Your task to perform on an android device: Go to calendar. Show me events next week Image 0: 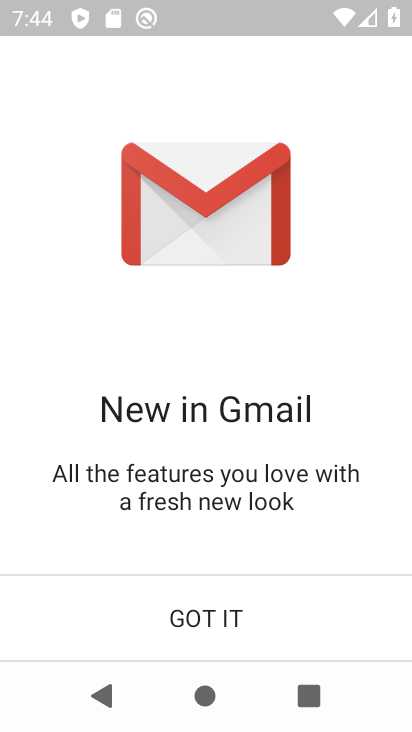
Step 0: drag from (227, 553) to (227, 123)
Your task to perform on an android device: Go to calendar. Show me events next week Image 1: 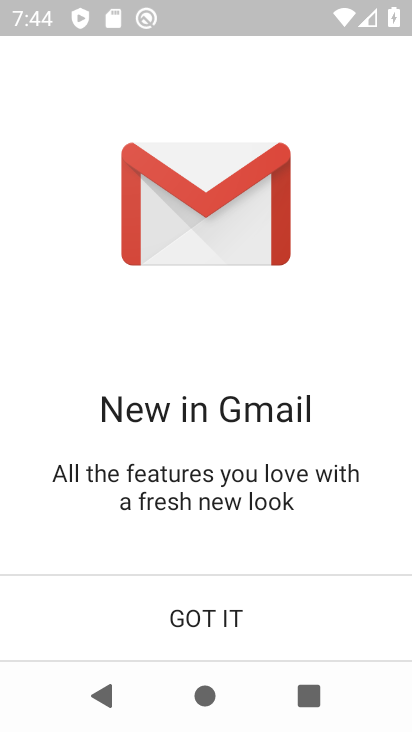
Step 1: press home button
Your task to perform on an android device: Go to calendar. Show me events next week Image 2: 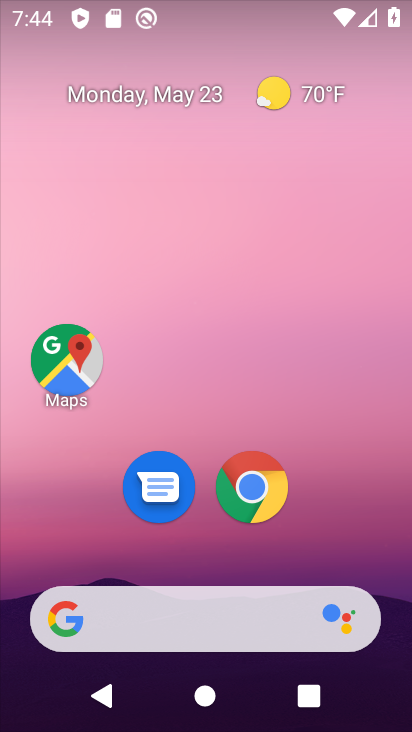
Step 2: drag from (249, 595) to (247, 193)
Your task to perform on an android device: Go to calendar. Show me events next week Image 3: 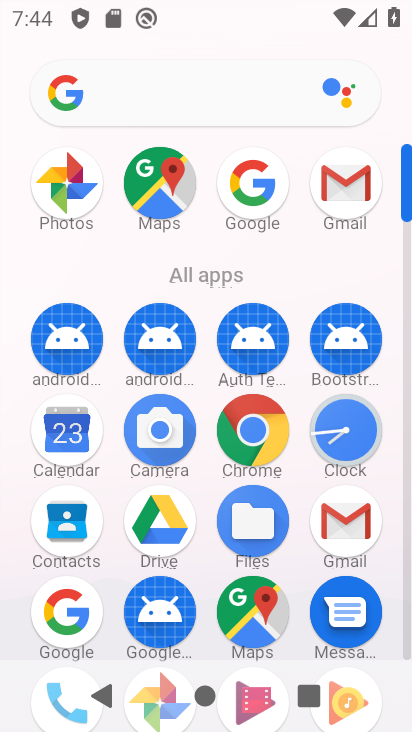
Step 3: click (56, 429)
Your task to perform on an android device: Go to calendar. Show me events next week Image 4: 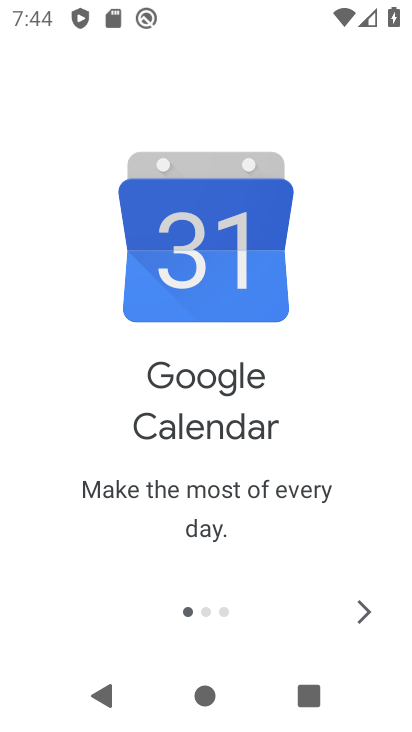
Step 4: click (366, 609)
Your task to perform on an android device: Go to calendar. Show me events next week Image 5: 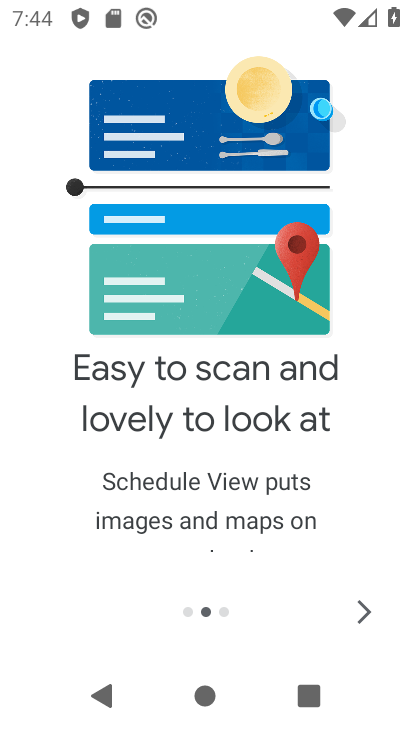
Step 5: click (366, 609)
Your task to perform on an android device: Go to calendar. Show me events next week Image 6: 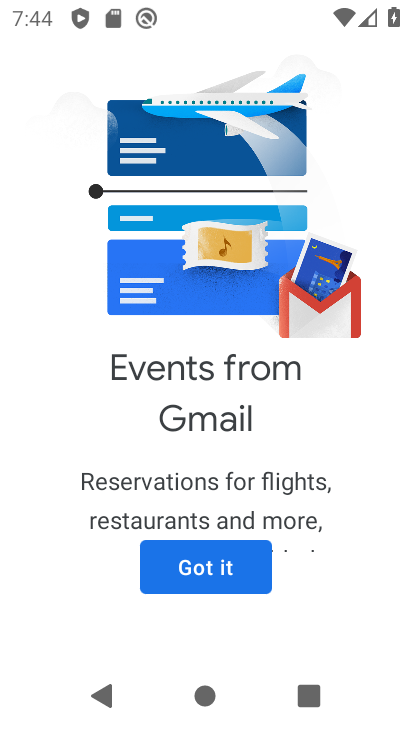
Step 6: click (235, 579)
Your task to perform on an android device: Go to calendar. Show me events next week Image 7: 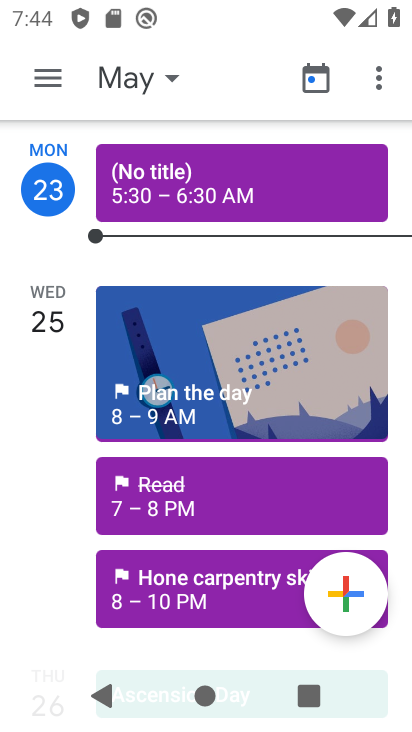
Step 7: click (126, 85)
Your task to perform on an android device: Go to calendar. Show me events next week Image 8: 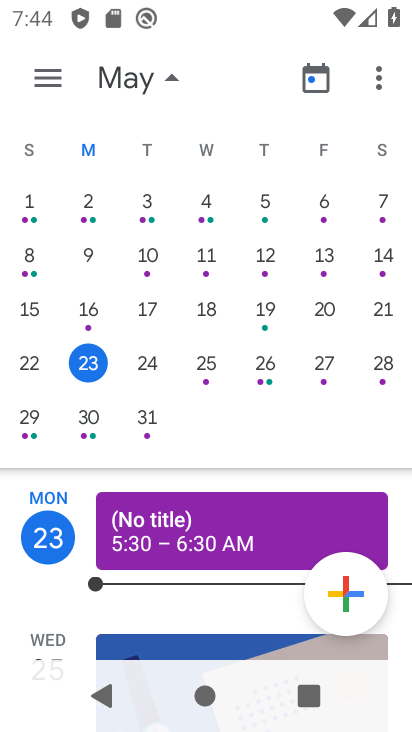
Step 8: click (0, 405)
Your task to perform on an android device: Go to calendar. Show me events next week Image 9: 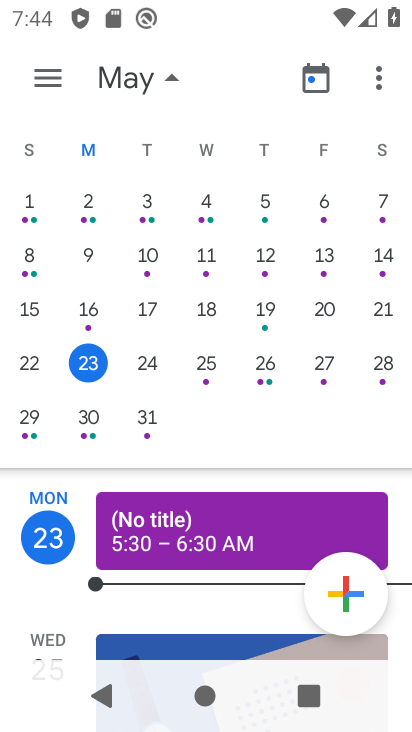
Step 9: drag from (366, 301) to (40, 339)
Your task to perform on an android device: Go to calendar. Show me events next week Image 10: 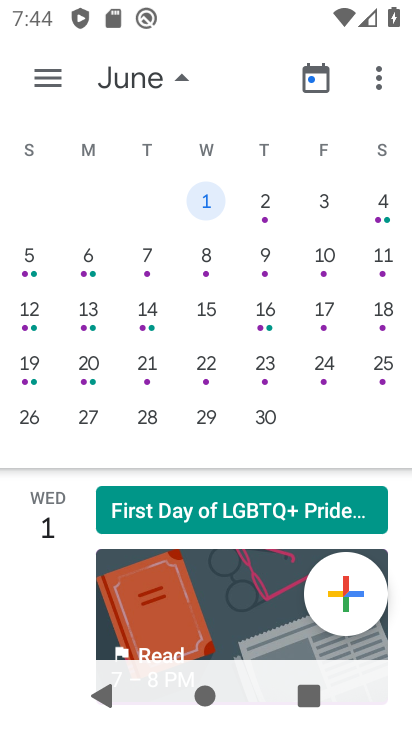
Step 10: click (383, 211)
Your task to perform on an android device: Go to calendar. Show me events next week Image 11: 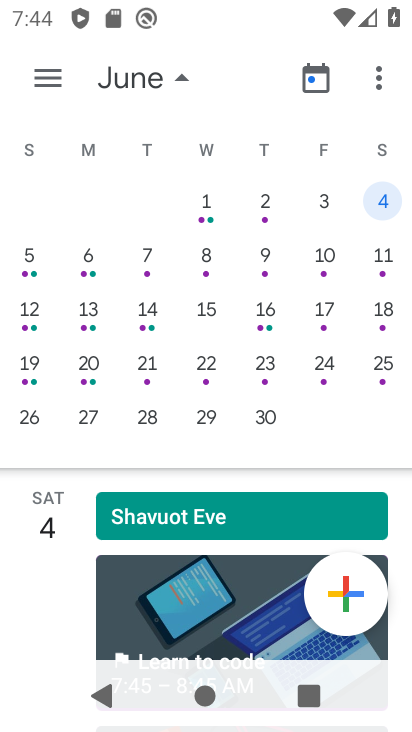
Step 11: drag from (261, 583) to (263, 298)
Your task to perform on an android device: Go to calendar. Show me events next week Image 12: 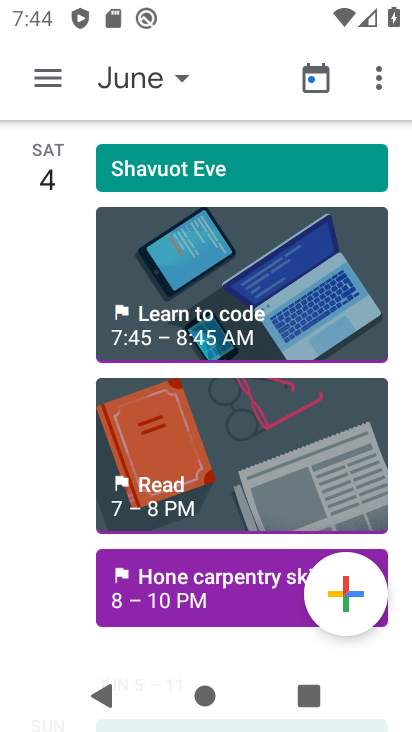
Step 12: click (154, 290)
Your task to perform on an android device: Go to calendar. Show me events next week Image 13: 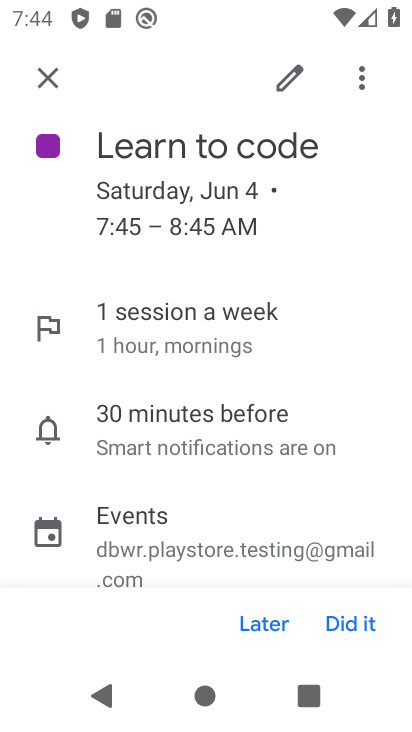
Step 13: task complete